Your task to perform on an android device: delete the emails in spam in the gmail app Image 0: 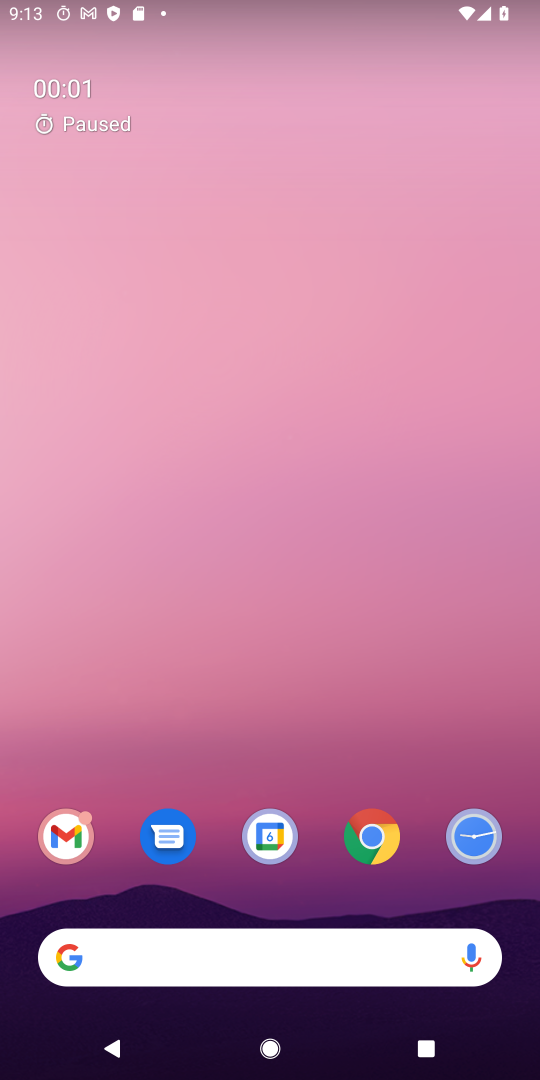
Step 0: drag from (437, 840) to (384, 136)
Your task to perform on an android device: delete the emails in spam in the gmail app Image 1: 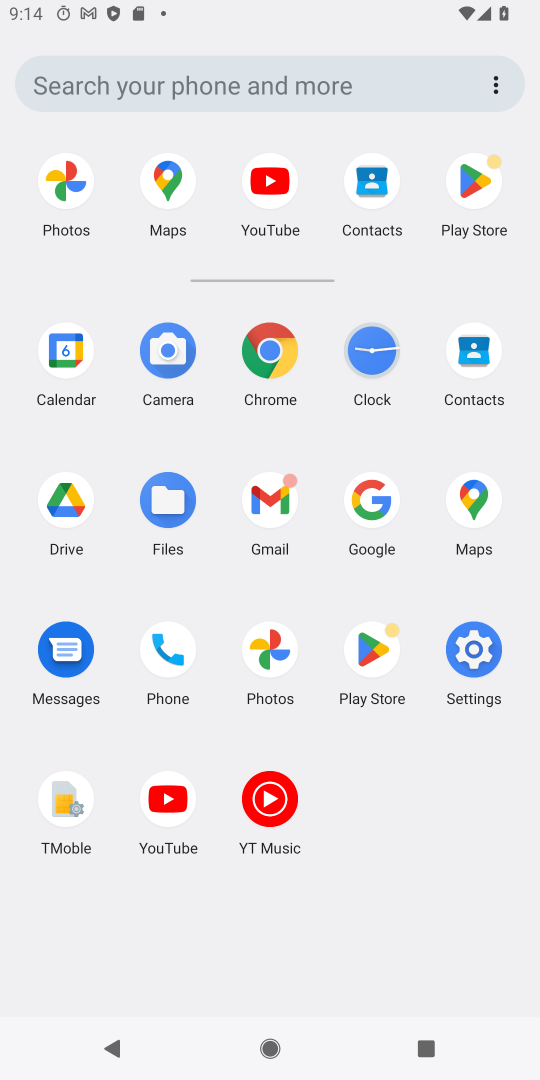
Step 1: click (262, 494)
Your task to perform on an android device: delete the emails in spam in the gmail app Image 2: 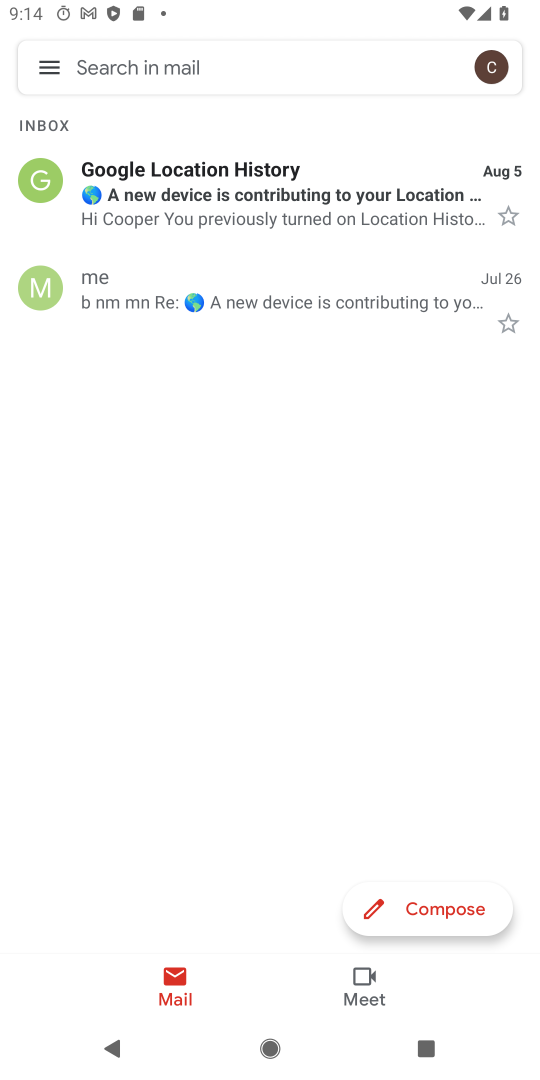
Step 2: task complete